Your task to perform on an android device: toggle airplane mode Image 0: 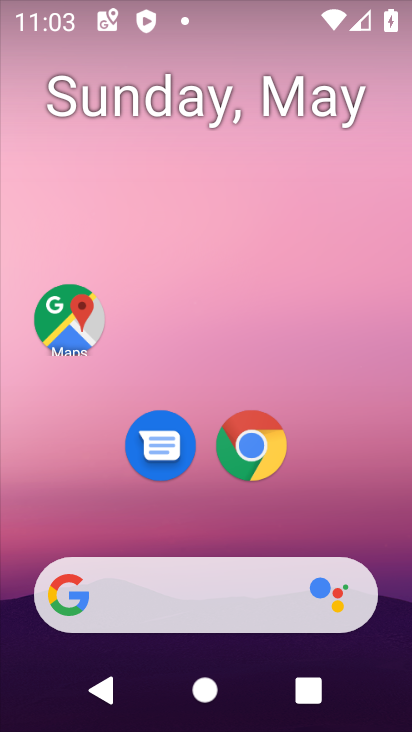
Step 0: drag from (217, 461) to (247, 247)
Your task to perform on an android device: toggle airplane mode Image 1: 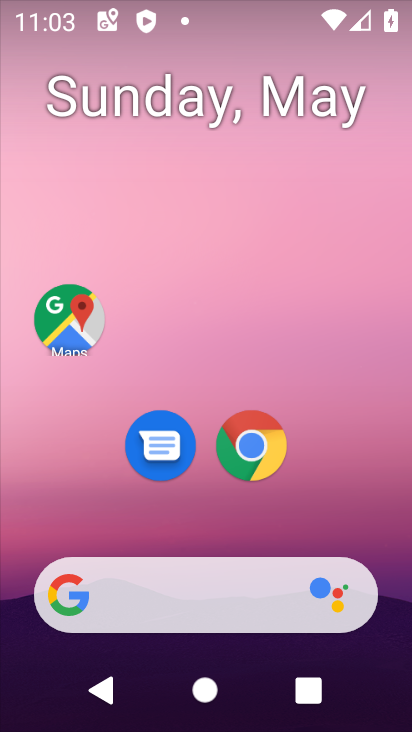
Step 1: drag from (217, 497) to (245, 197)
Your task to perform on an android device: toggle airplane mode Image 2: 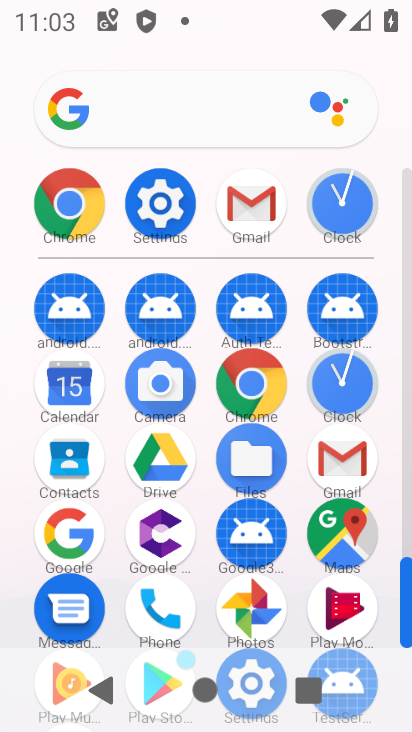
Step 2: drag from (297, 613) to (301, 277)
Your task to perform on an android device: toggle airplane mode Image 3: 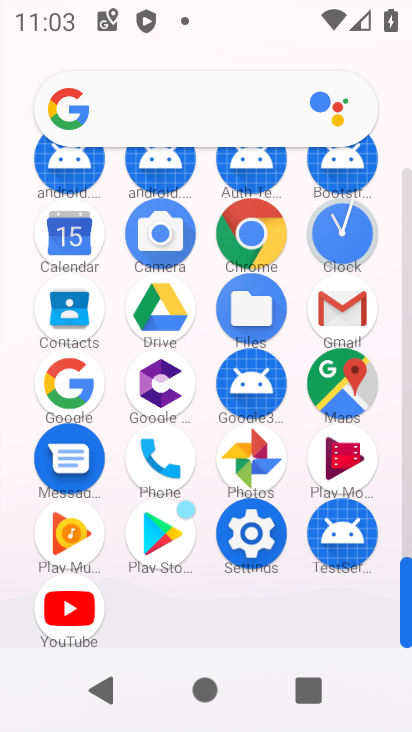
Step 3: click (243, 536)
Your task to perform on an android device: toggle airplane mode Image 4: 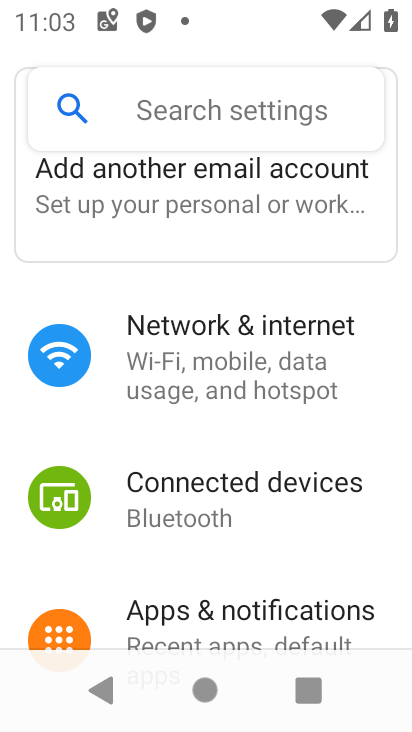
Step 4: click (276, 342)
Your task to perform on an android device: toggle airplane mode Image 5: 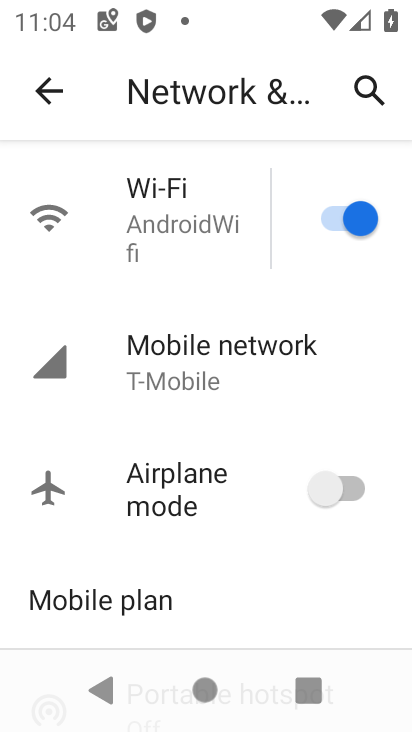
Step 5: click (338, 490)
Your task to perform on an android device: toggle airplane mode Image 6: 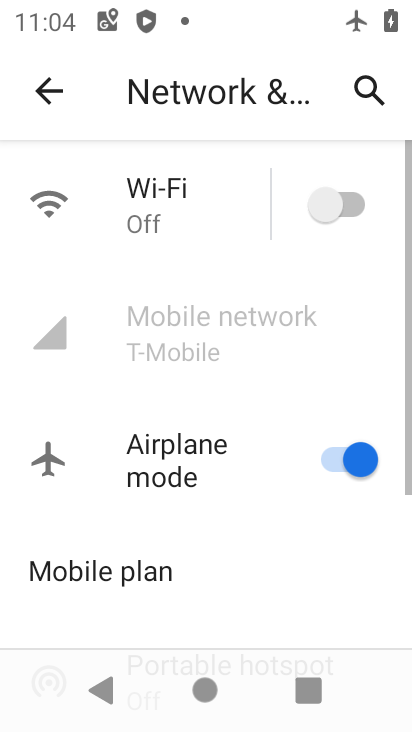
Step 6: task complete